Your task to perform on an android device: add a label to a message in the gmail app Image 0: 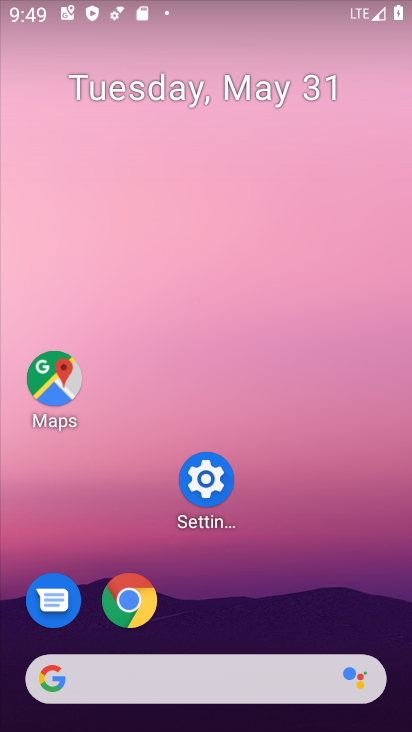
Step 0: press home button
Your task to perform on an android device: add a label to a message in the gmail app Image 1: 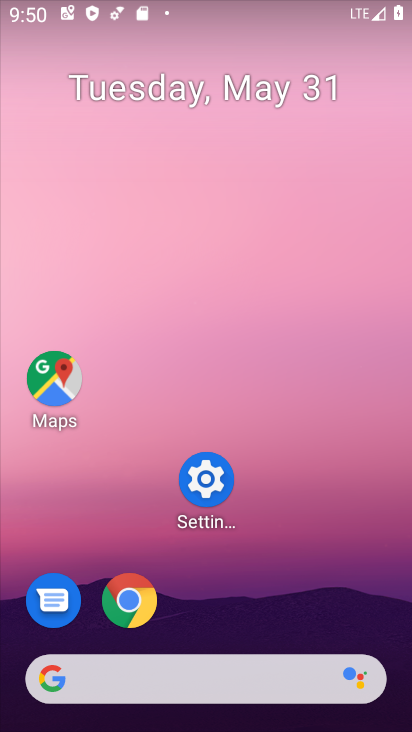
Step 1: drag from (233, 701) to (272, 262)
Your task to perform on an android device: add a label to a message in the gmail app Image 2: 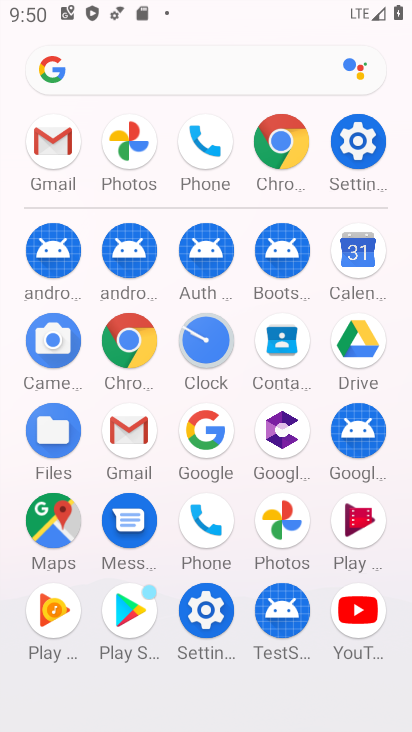
Step 2: click (129, 431)
Your task to perform on an android device: add a label to a message in the gmail app Image 3: 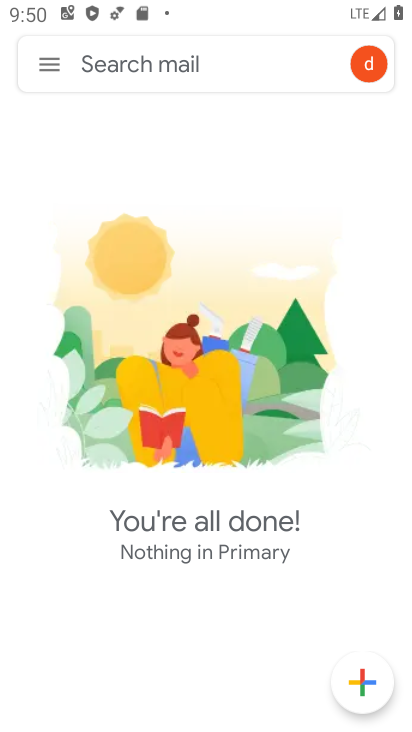
Step 3: click (44, 67)
Your task to perform on an android device: add a label to a message in the gmail app Image 4: 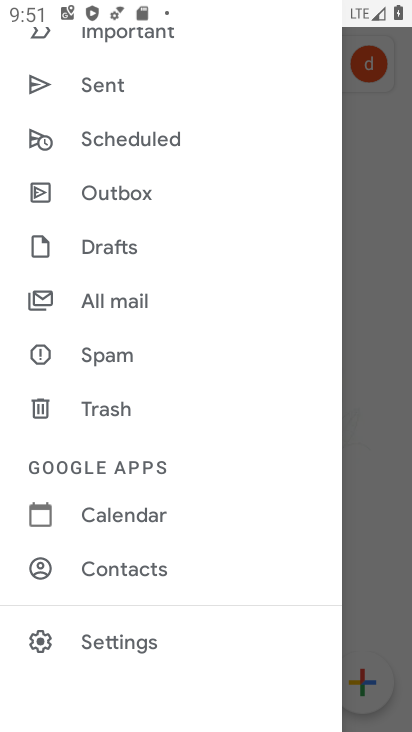
Step 4: click (104, 635)
Your task to perform on an android device: add a label to a message in the gmail app Image 5: 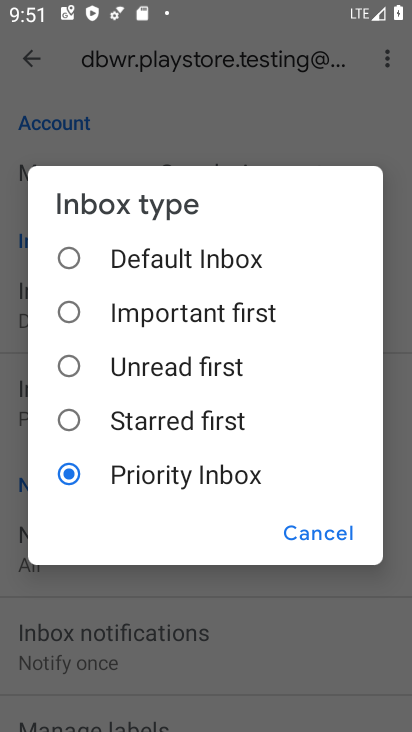
Step 5: click (319, 532)
Your task to perform on an android device: add a label to a message in the gmail app Image 6: 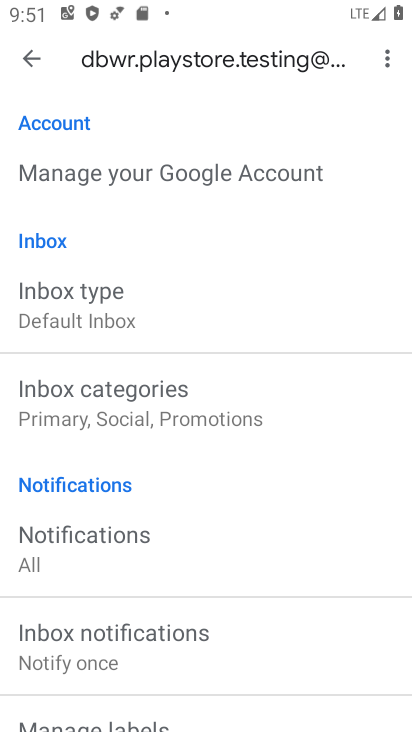
Step 6: drag from (149, 634) to (166, 528)
Your task to perform on an android device: add a label to a message in the gmail app Image 7: 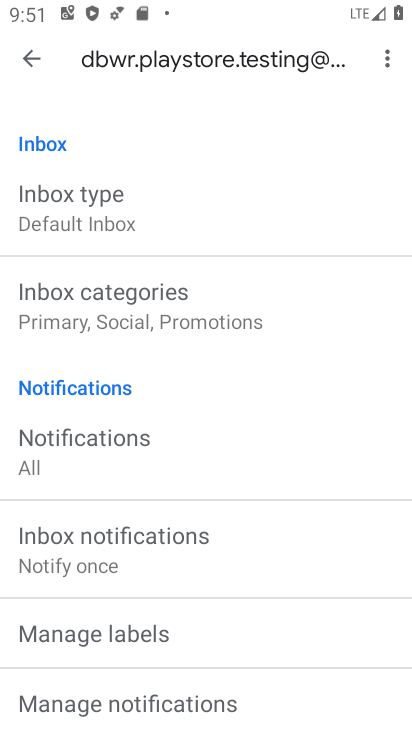
Step 7: click (91, 634)
Your task to perform on an android device: add a label to a message in the gmail app Image 8: 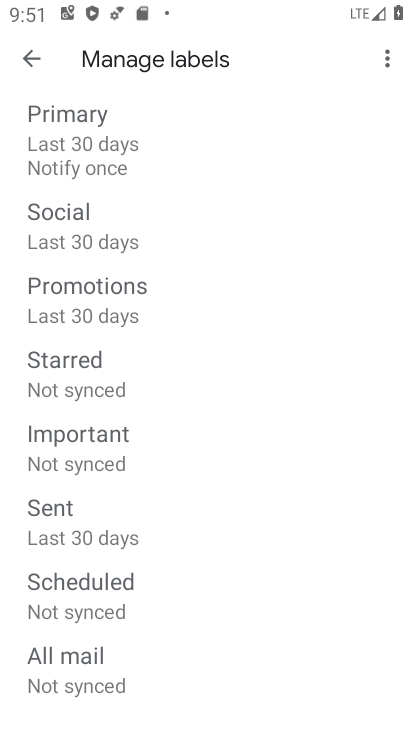
Step 8: click (105, 404)
Your task to perform on an android device: add a label to a message in the gmail app Image 9: 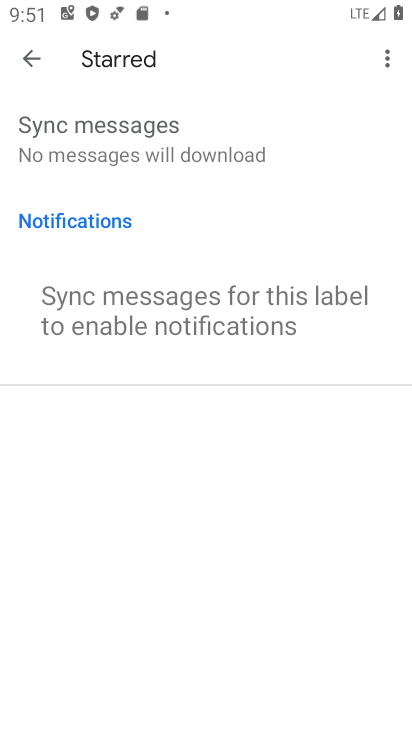
Step 9: task complete